Your task to perform on an android device: open chrome and create a bookmark for the current page Image 0: 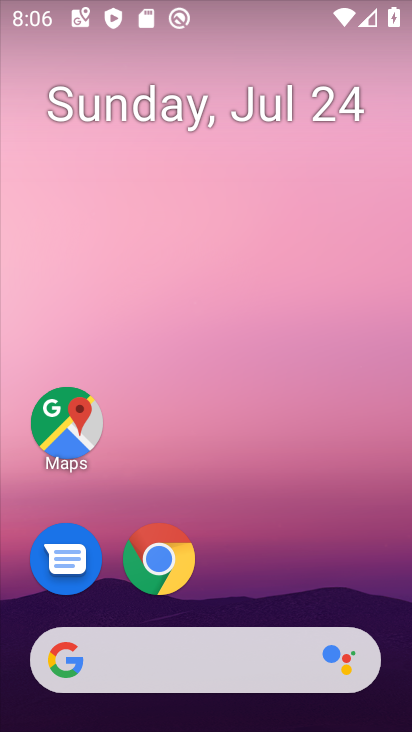
Step 0: press home button
Your task to perform on an android device: open chrome and create a bookmark for the current page Image 1: 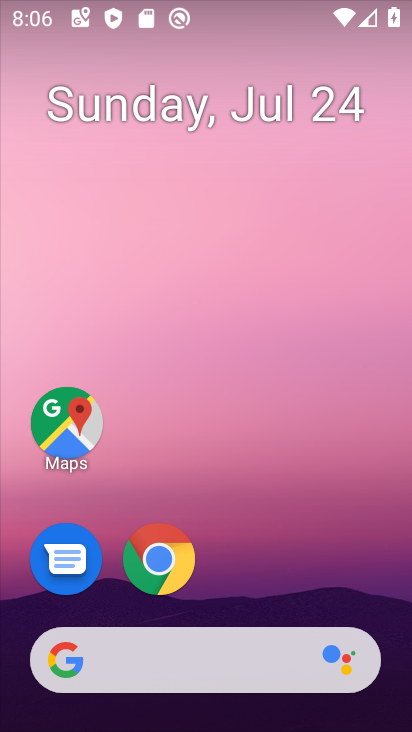
Step 1: drag from (339, 501) to (334, 58)
Your task to perform on an android device: open chrome and create a bookmark for the current page Image 2: 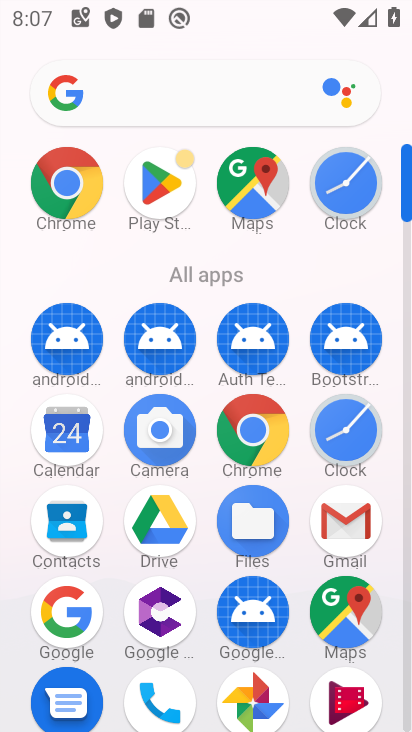
Step 2: click (255, 430)
Your task to perform on an android device: open chrome and create a bookmark for the current page Image 3: 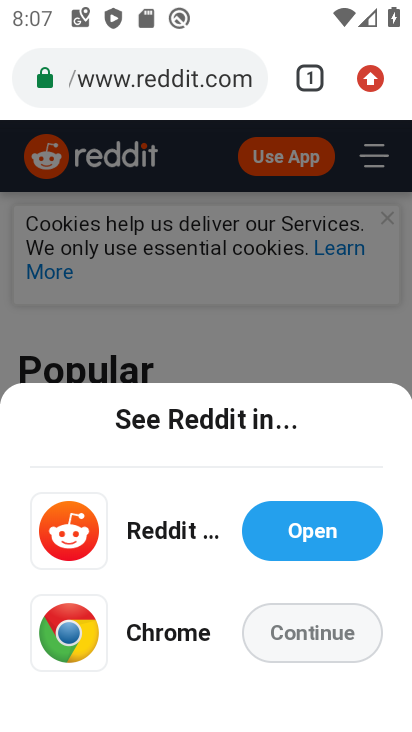
Step 3: click (371, 84)
Your task to perform on an android device: open chrome and create a bookmark for the current page Image 4: 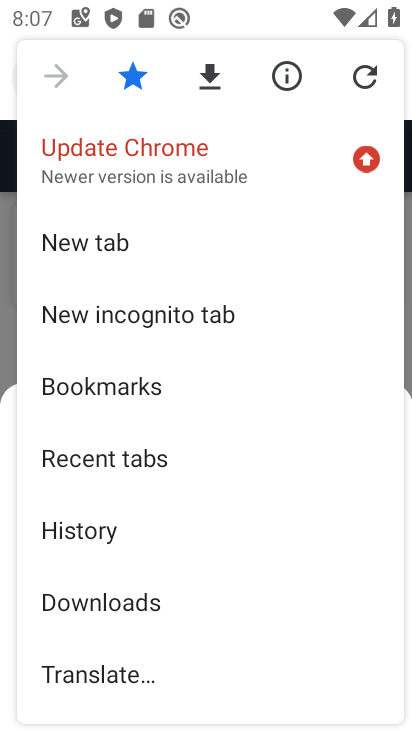
Step 4: task complete